Your task to perform on an android device: change timer sound Image 0: 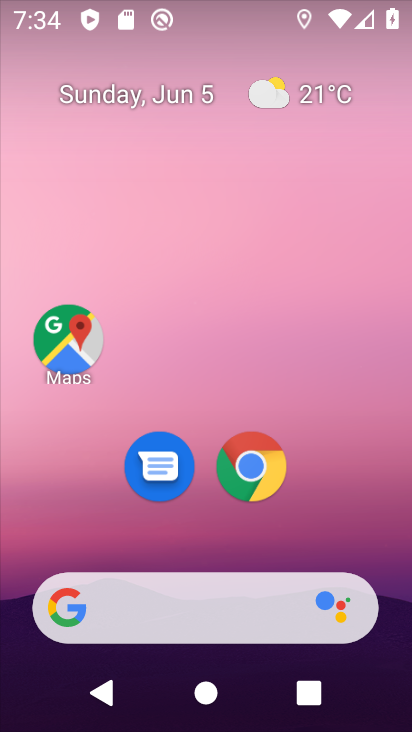
Step 0: drag from (177, 540) to (190, 0)
Your task to perform on an android device: change timer sound Image 1: 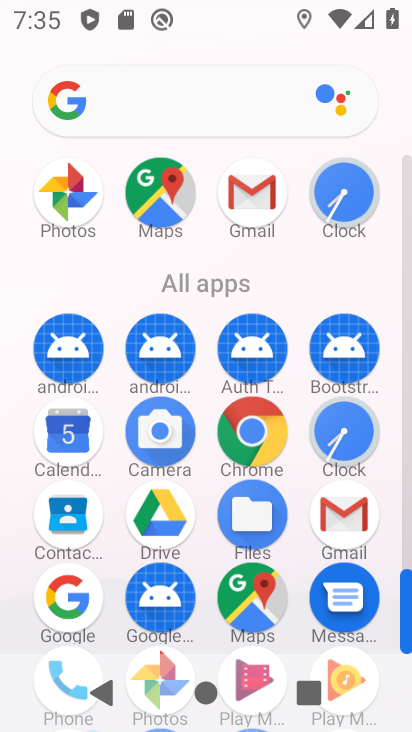
Step 1: drag from (215, 476) to (237, 309)
Your task to perform on an android device: change timer sound Image 2: 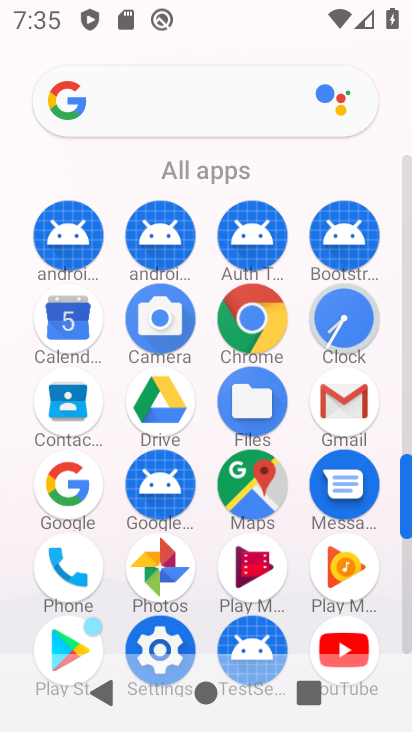
Step 2: click (349, 312)
Your task to perform on an android device: change timer sound Image 3: 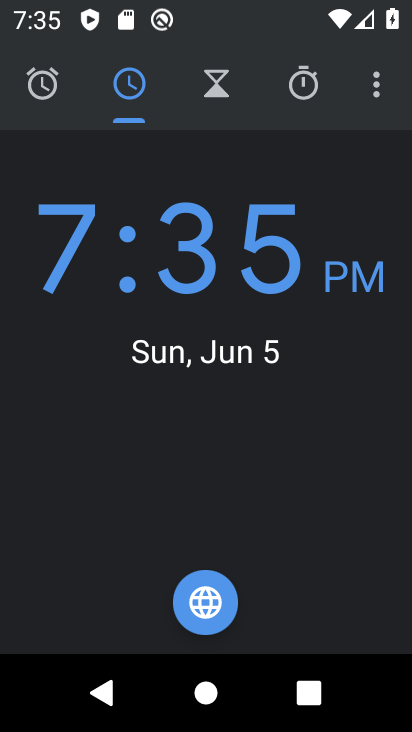
Step 3: click (380, 75)
Your task to perform on an android device: change timer sound Image 4: 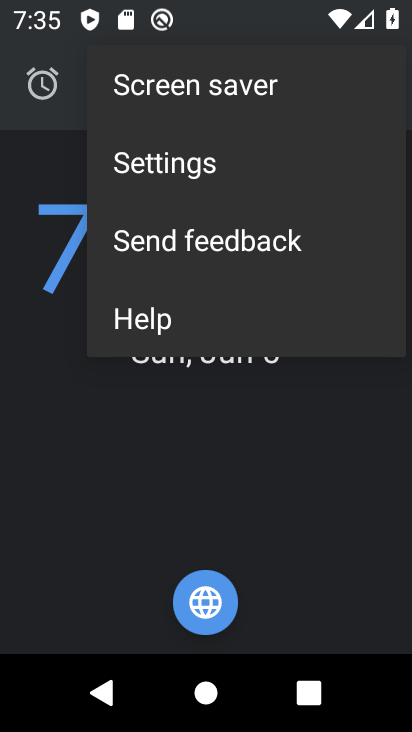
Step 4: click (212, 154)
Your task to perform on an android device: change timer sound Image 5: 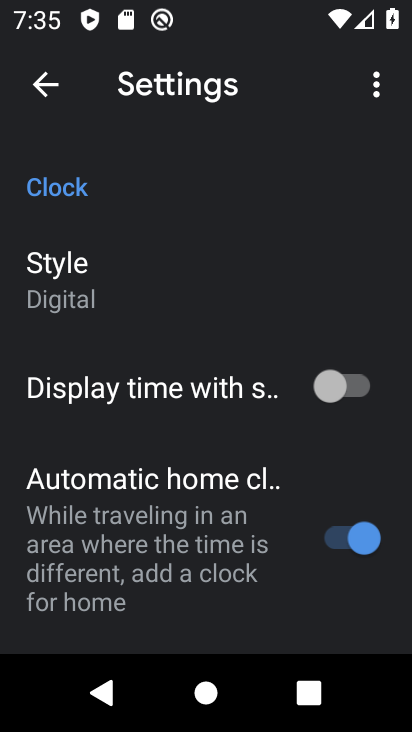
Step 5: drag from (183, 530) to (289, 25)
Your task to perform on an android device: change timer sound Image 6: 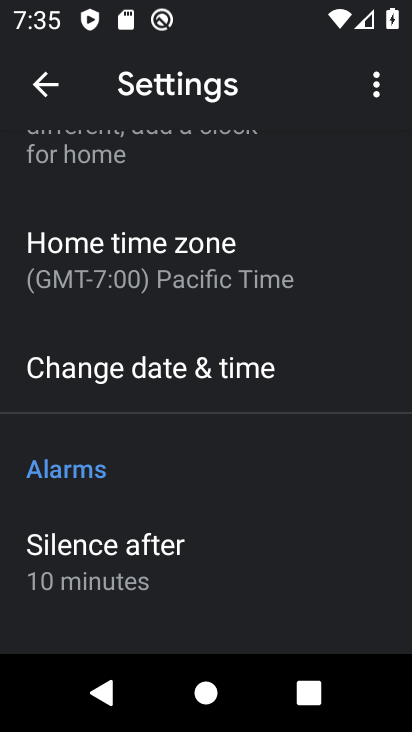
Step 6: drag from (192, 512) to (231, 164)
Your task to perform on an android device: change timer sound Image 7: 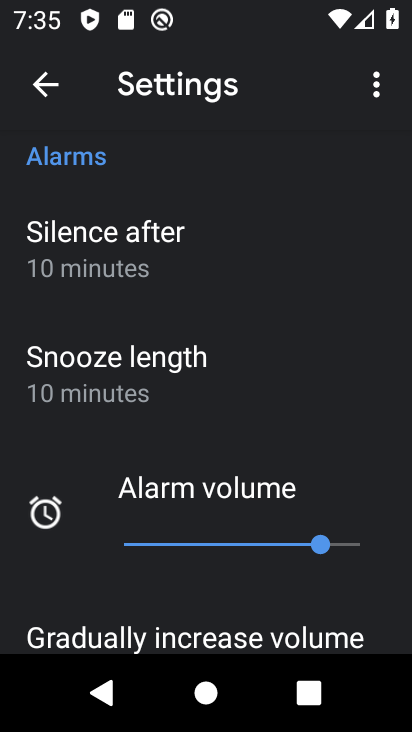
Step 7: drag from (165, 531) to (208, 224)
Your task to perform on an android device: change timer sound Image 8: 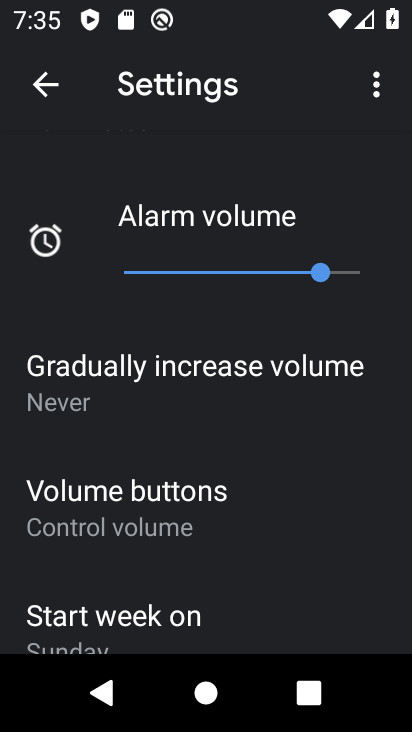
Step 8: drag from (173, 617) to (272, 189)
Your task to perform on an android device: change timer sound Image 9: 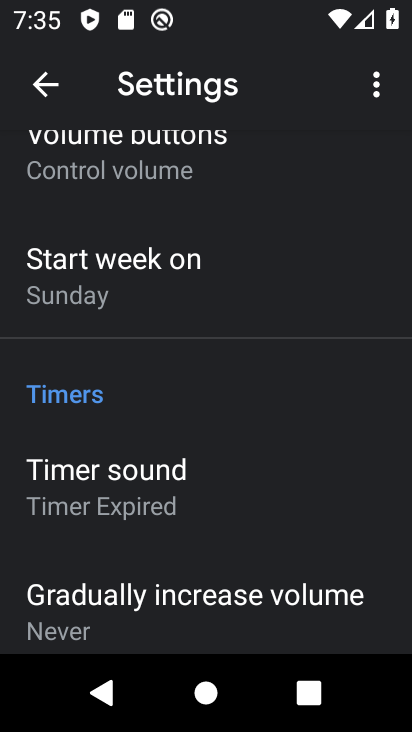
Step 9: click (121, 499)
Your task to perform on an android device: change timer sound Image 10: 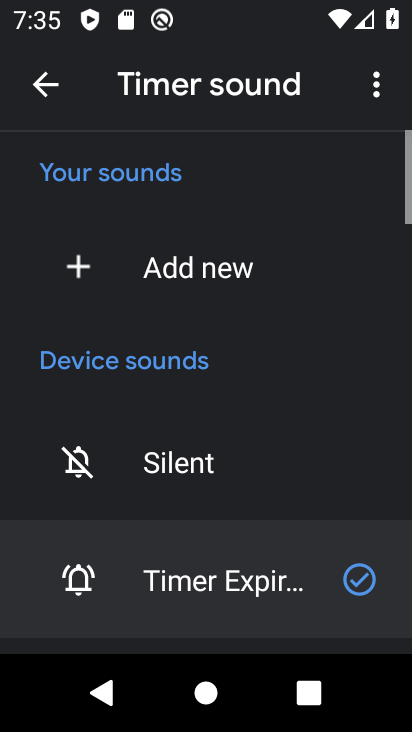
Step 10: drag from (234, 507) to (224, 141)
Your task to perform on an android device: change timer sound Image 11: 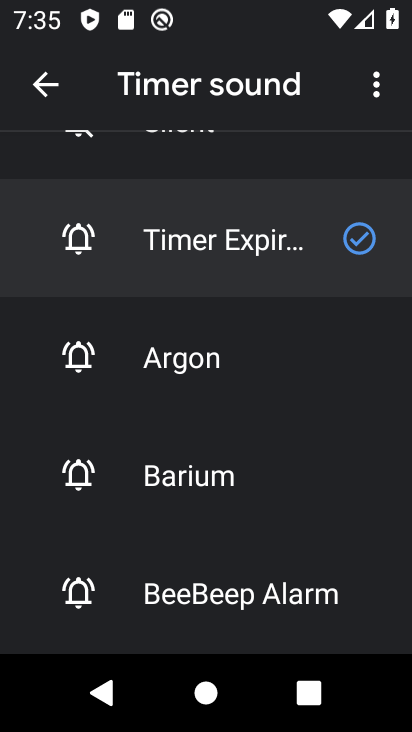
Step 11: click (227, 471)
Your task to perform on an android device: change timer sound Image 12: 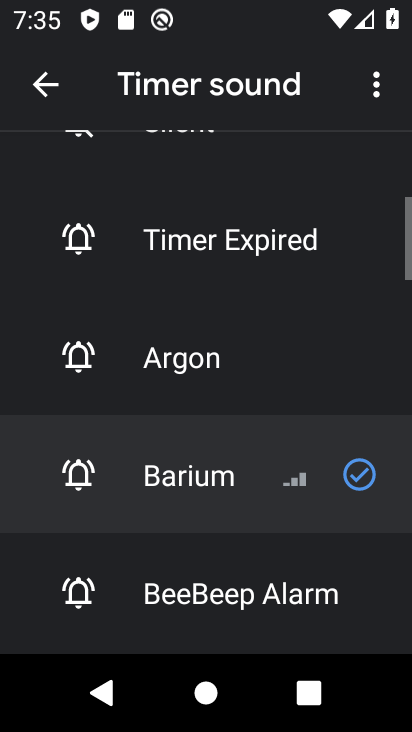
Step 12: task complete